Your task to perform on an android device: Open location settings Image 0: 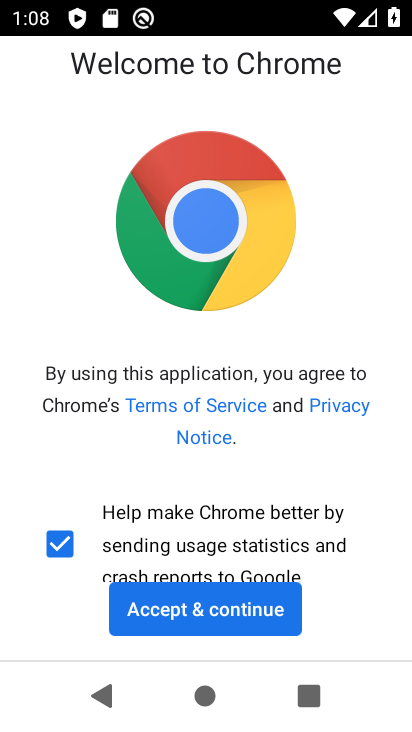
Step 0: press home button
Your task to perform on an android device: Open location settings Image 1: 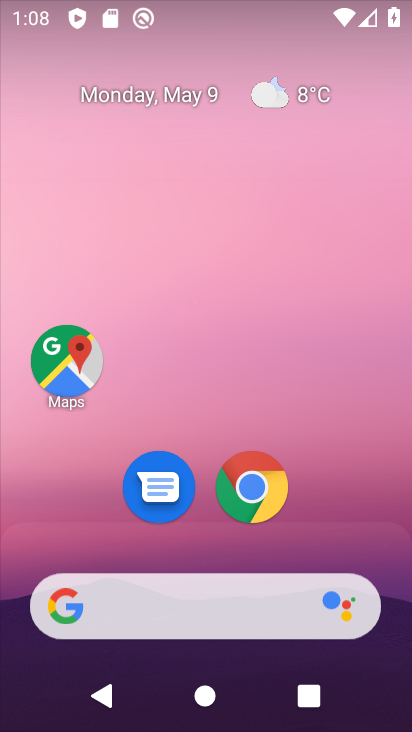
Step 1: drag from (343, 564) to (263, 101)
Your task to perform on an android device: Open location settings Image 2: 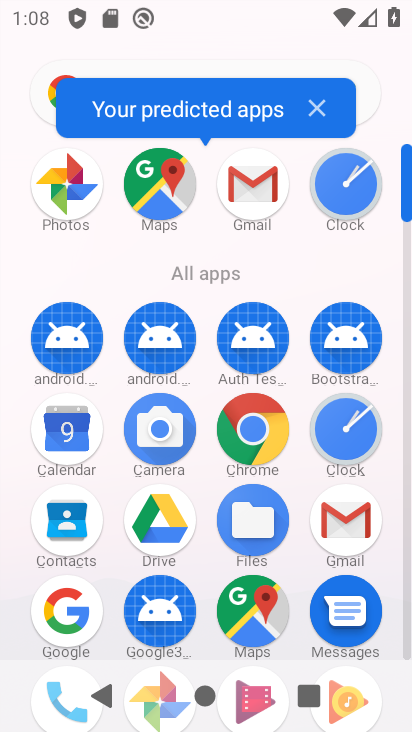
Step 2: drag from (203, 282) to (198, 25)
Your task to perform on an android device: Open location settings Image 3: 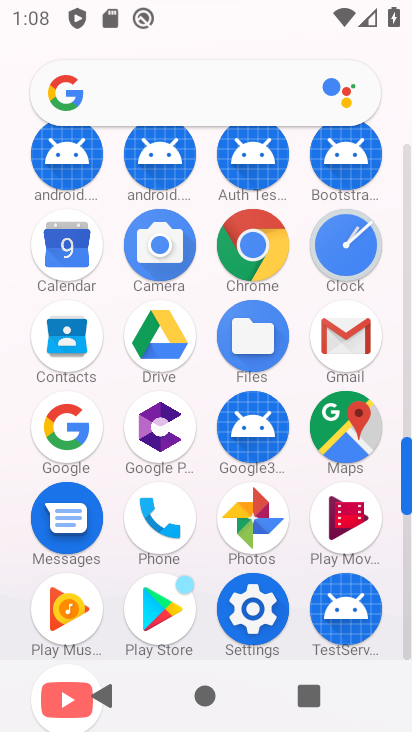
Step 3: click (237, 607)
Your task to perform on an android device: Open location settings Image 4: 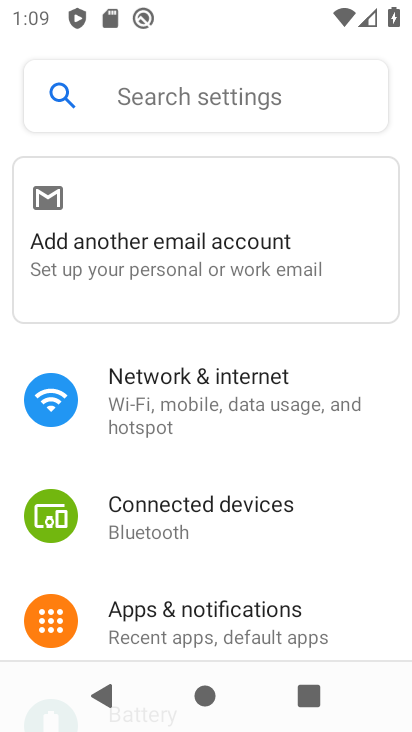
Step 4: drag from (257, 570) to (208, 191)
Your task to perform on an android device: Open location settings Image 5: 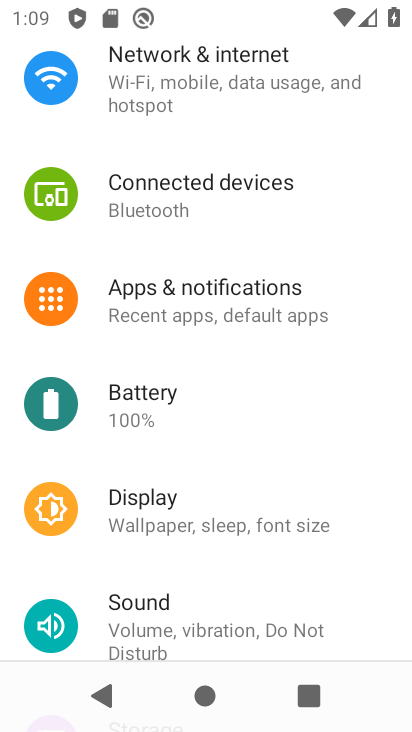
Step 5: drag from (199, 484) to (224, 64)
Your task to perform on an android device: Open location settings Image 6: 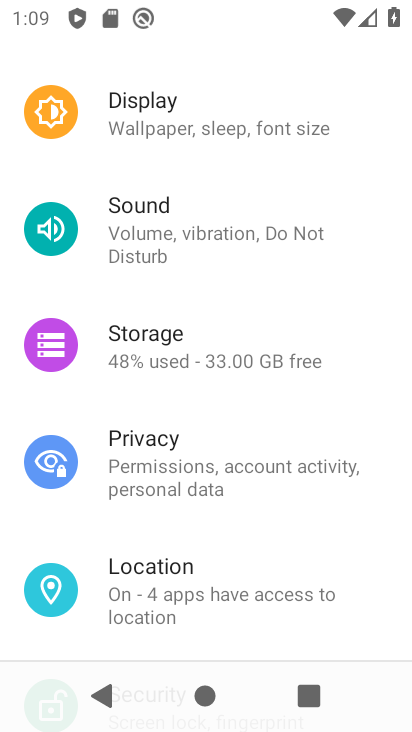
Step 6: click (189, 565)
Your task to perform on an android device: Open location settings Image 7: 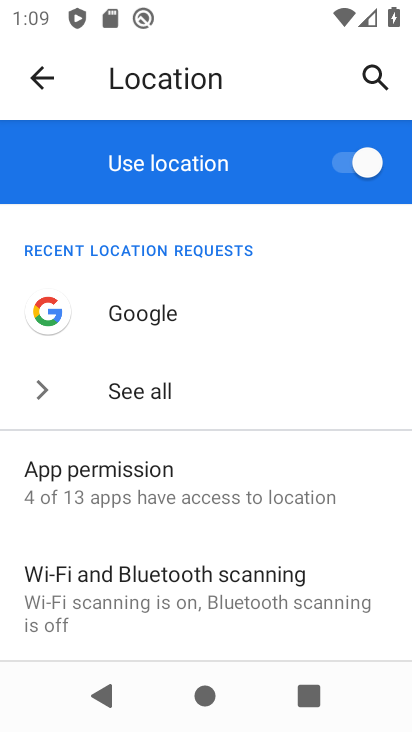
Step 7: task complete